Your task to perform on an android device: turn off data saver in the chrome app Image 0: 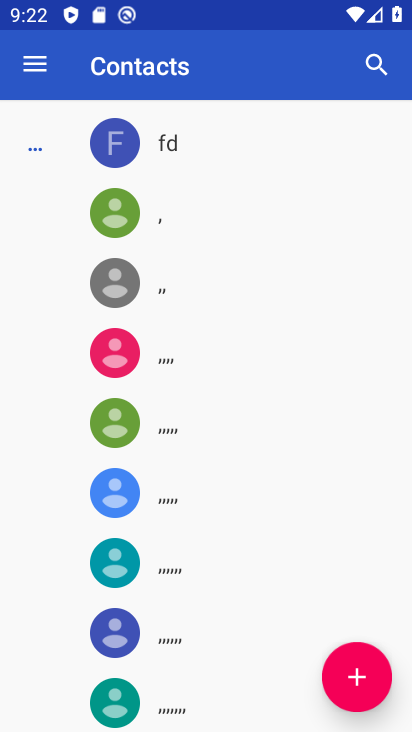
Step 0: press home button
Your task to perform on an android device: turn off data saver in the chrome app Image 1: 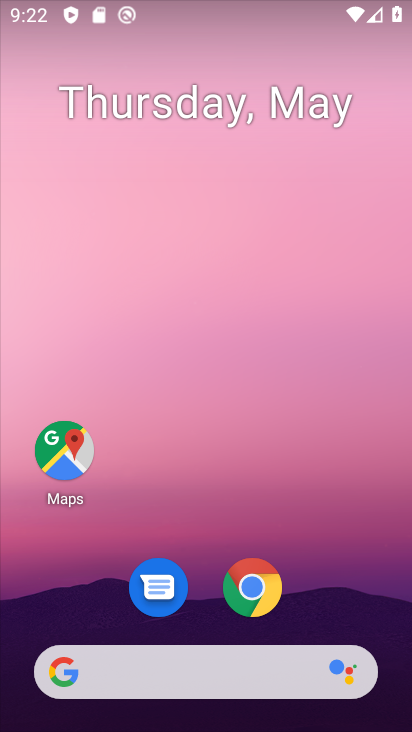
Step 1: click (252, 581)
Your task to perform on an android device: turn off data saver in the chrome app Image 2: 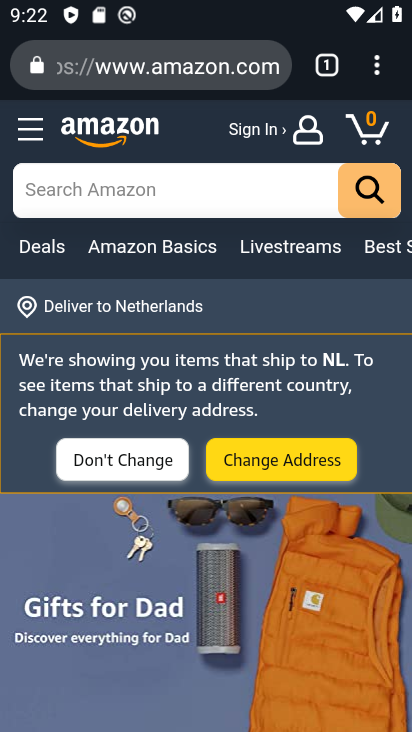
Step 2: click (379, 68)
Your task to perform on an android device: turn off data saver in the chrome app Image 3: 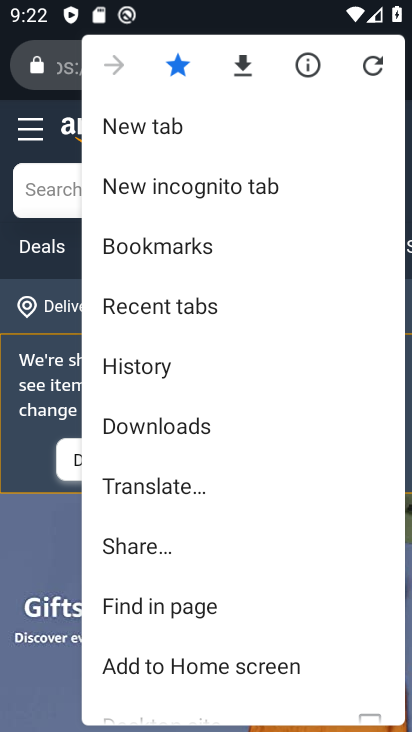
Step 3: drag from (178, 560) to (200, 308)
Your task to perform on an android device: turn off data saver in the chrome app Image 4: 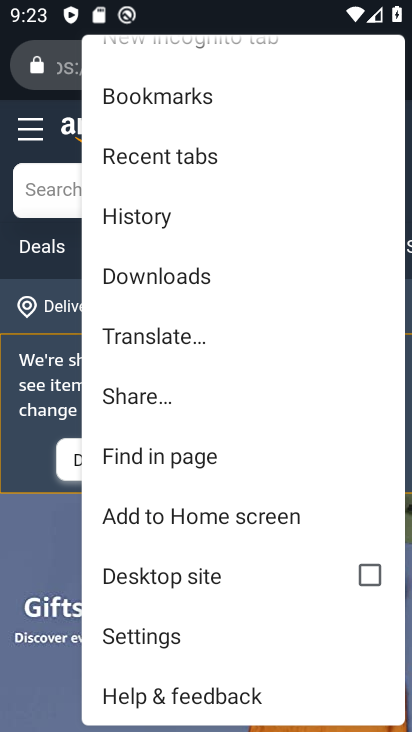
Step 4: click (125, 640)
Your task to perform on an android device: turn off data saver in the chrome app Image 5: 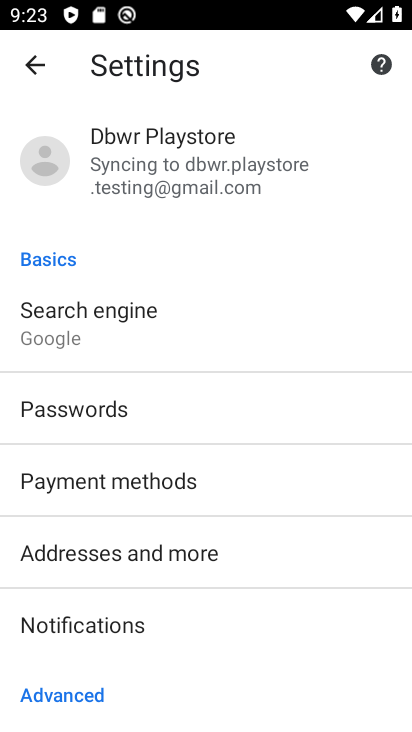
Step 5: drag from (188, 659) to (217, 321)
Your task to perform on an android device: turn off data saver in the chrome app Image 6: 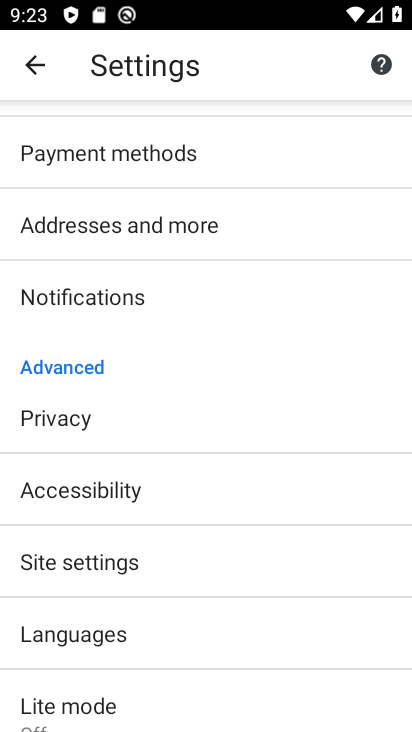
Step 6: click (103, 704)
Your task to perform on an android device: turn off data saver in the chrome app Image 7: 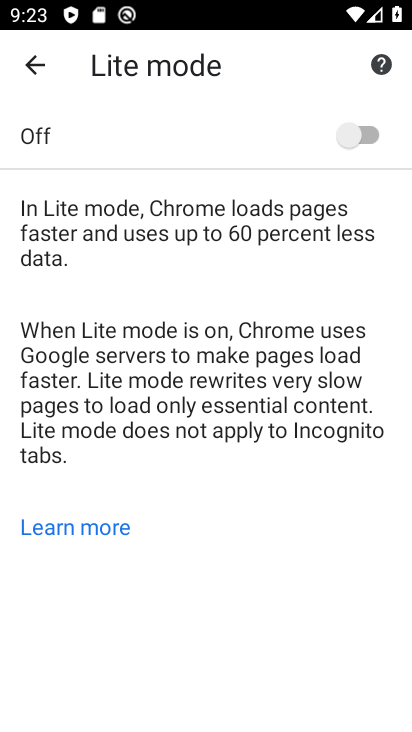
Step 7: task complete